Your task to perform on an android device: Find coffee shops on Maps Image 0: 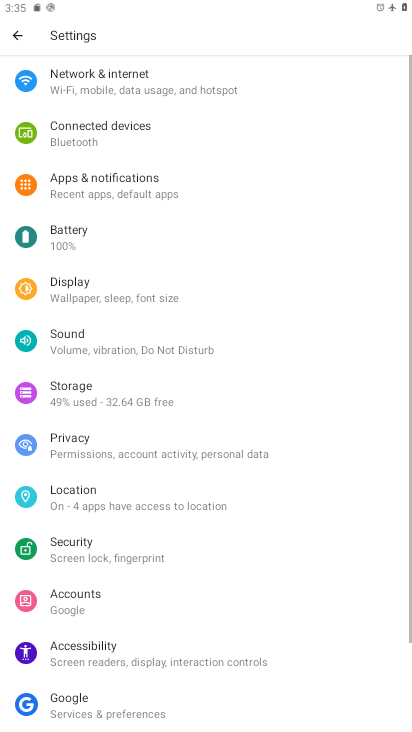
Step 0: press home button
Your task to perform on an android device: Find coffee shops on Maps Image 1: 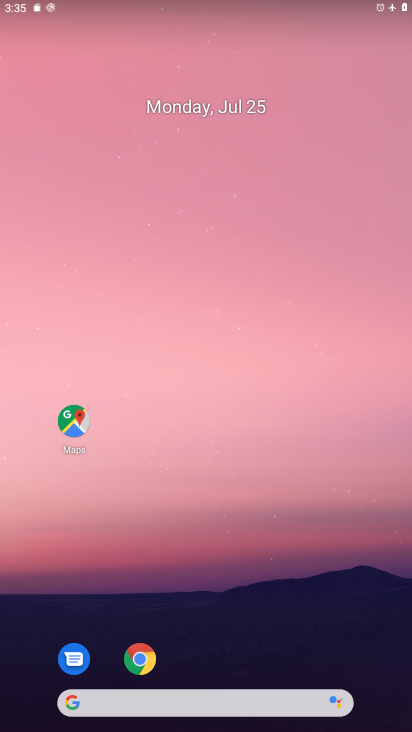
Step 1: click (71, 428)
Your task to perform on an android device: Find coffee shops on Maps Image 2: 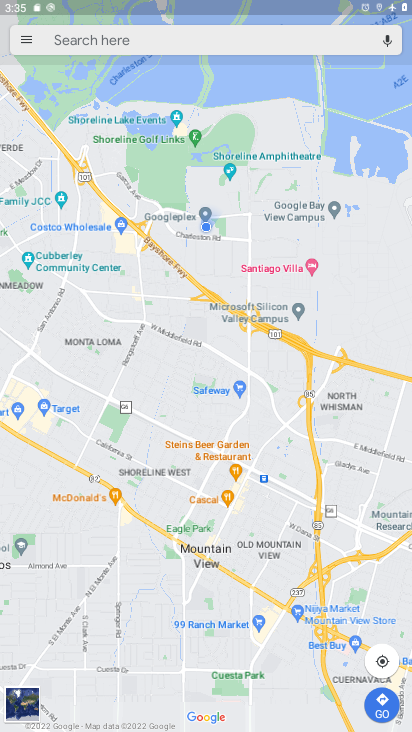
Step 2: click (146, 35)
Your task to perform on an android device: Find coffee shops on Maps Image 3: 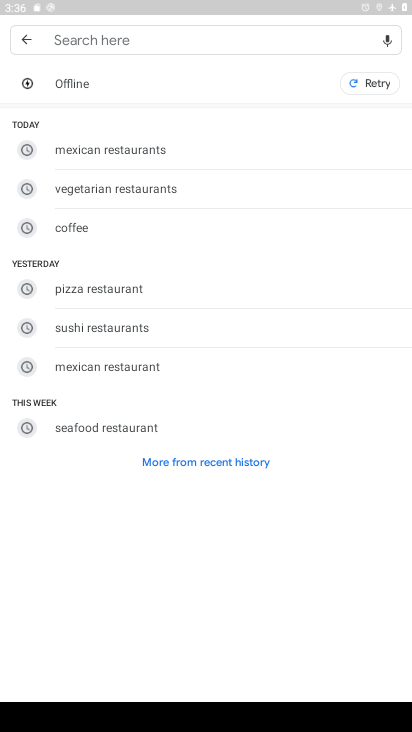
Step 3: type "coffee shops"
Your task to perform on an android device: Find coffee shops on Maps Image 4: 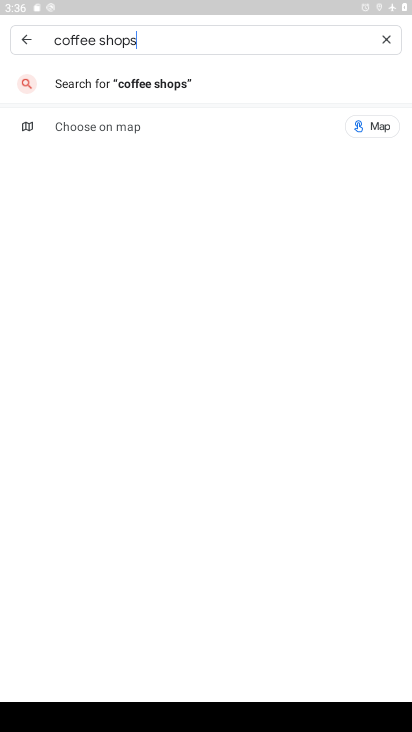
Step 4: press back button
Your task to perform on an android device: Find coffee shops on Maps Image 5: 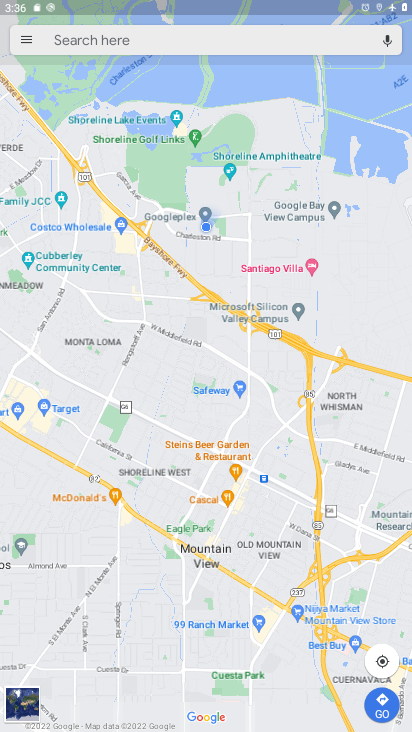
Step 5: press back button
Your task to perform on an android device: Find coffee shops on Maps Image 6: 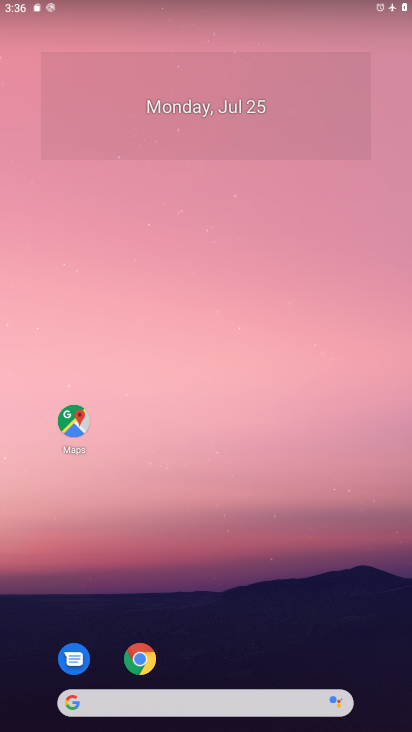
Step 6: drag from (187, 544) to (181, 22)
Your task to perform on an android device: Find coffee shops on Maps Image 7: 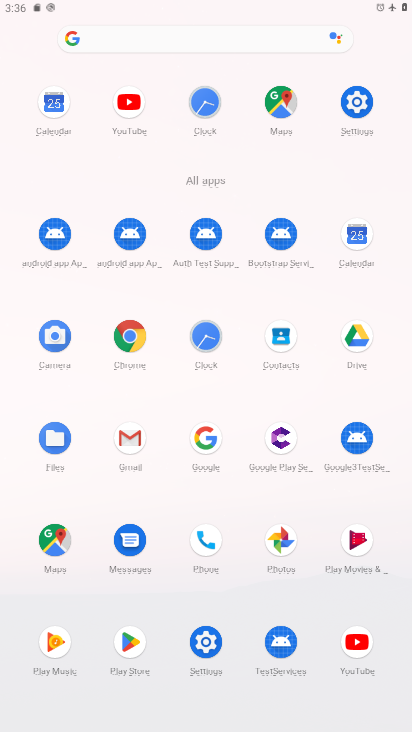
Step 7: click (354, 105)
Your task to perform on an android device: Find coffee shops on Maps Image 8: 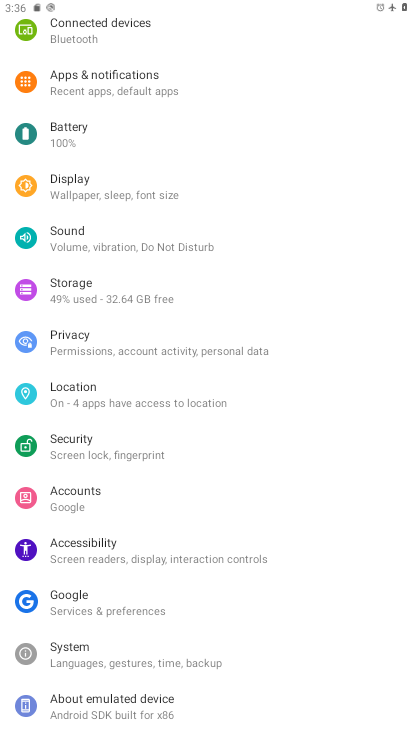
Step 8: click (360, 103)
Your task to perform on an android device: Find coffee shops on Maps Image 9: 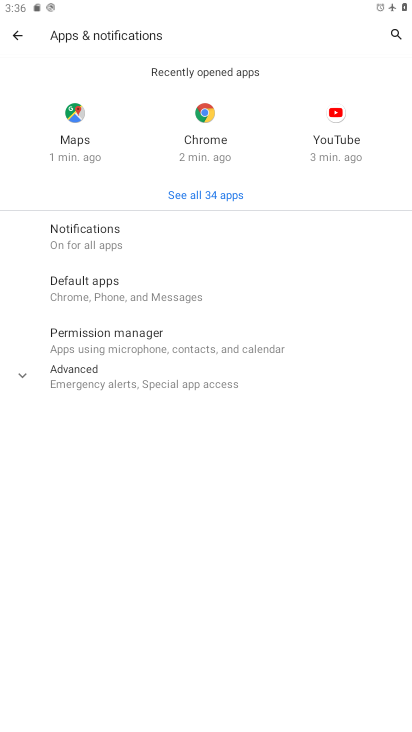
Step 9: drag from (356, 127) to (314, 477)
Your task to perform on an android device: Find coffee shops on Maps Image 10: 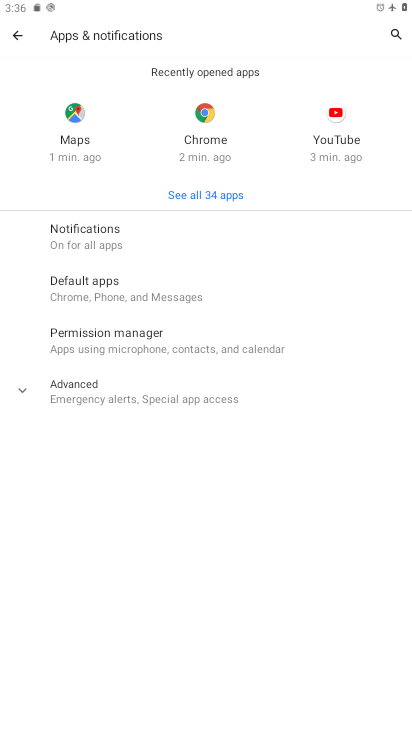
Step 10: click (18, 36)
Your task to perform on an android device: Find coffee shops on Maps Image 11: 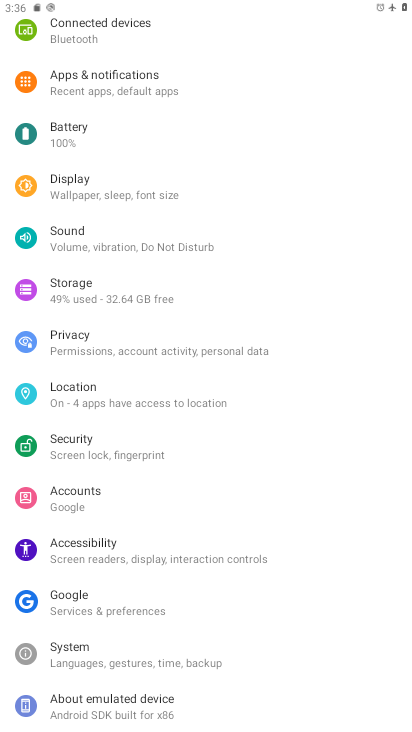
Step 11: drag from (125, 199) to (149, 426)
Your task to perform on an android device: Find coffee shops on Maps Image 12: 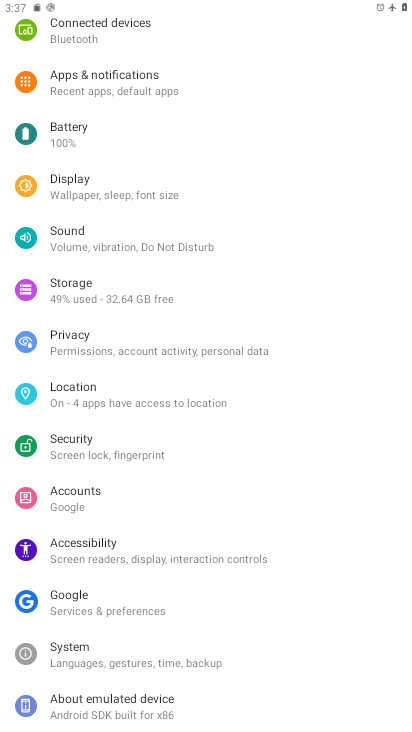
Step 12: drag from (258, 220) to (257, 571)
Your task to perform on an android device: Find coffee shops on Maps Image 13: 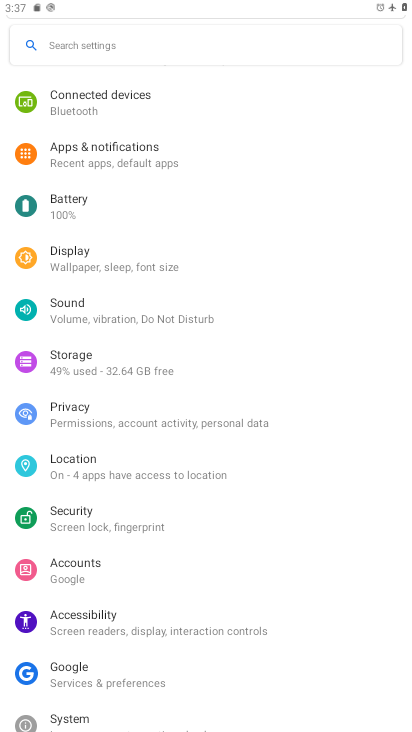
Step 13: drag from (227, 311) to (239, 594)
Your task to perform on an android device: Find coffee shops on Maps Image 14: 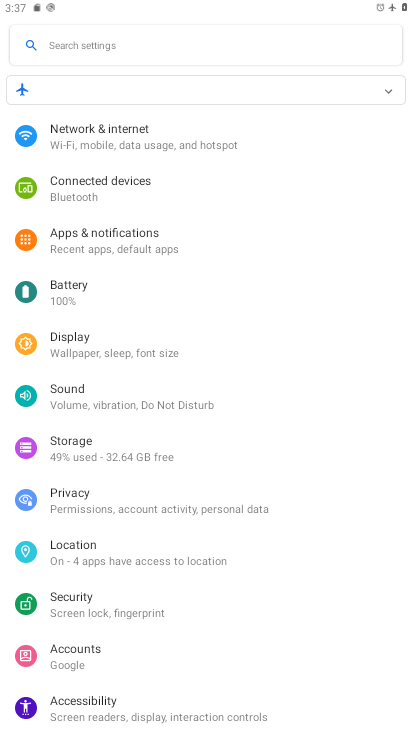
Step 14: click (388, 94)
Your task to perform on an android device: Find coffee shops on Maps Image 15: 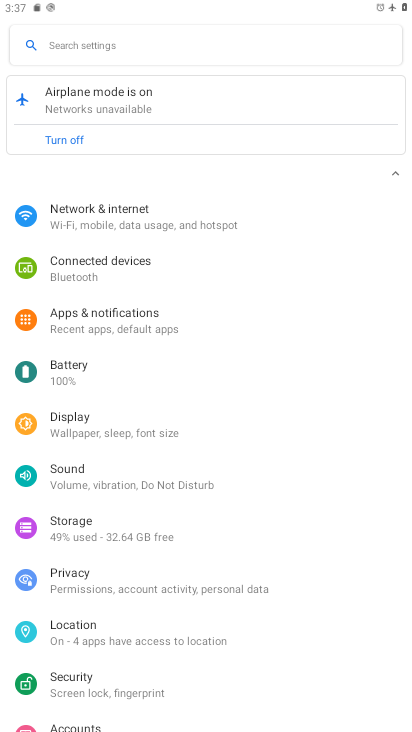
Step 15: click (75, 140)
Your task to perform on an android device: Find coffee shops on Maps Image 16: 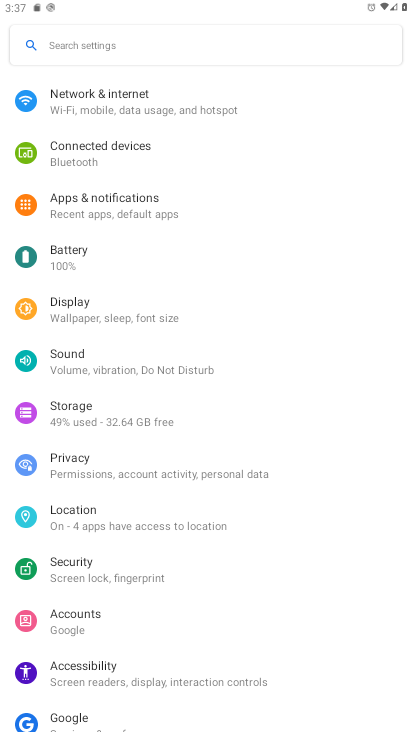
Step 16: press back button
Your task to perform on an android device: Find coffee shops on Maps Image 17: 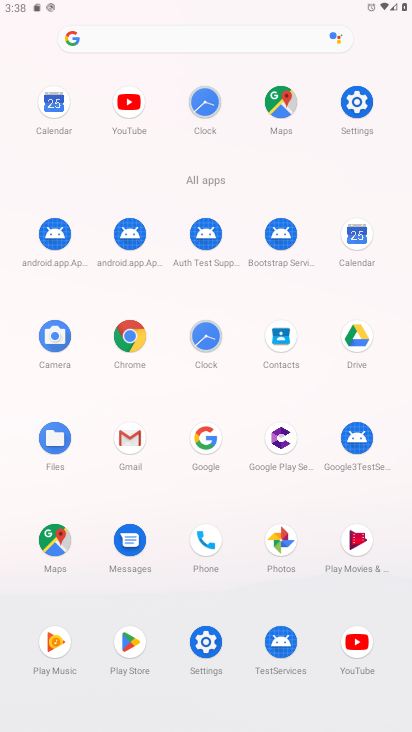
Step 17: click (278, 120)
Your task to perform on an android device: Find coffee shops on Maps Image 18: 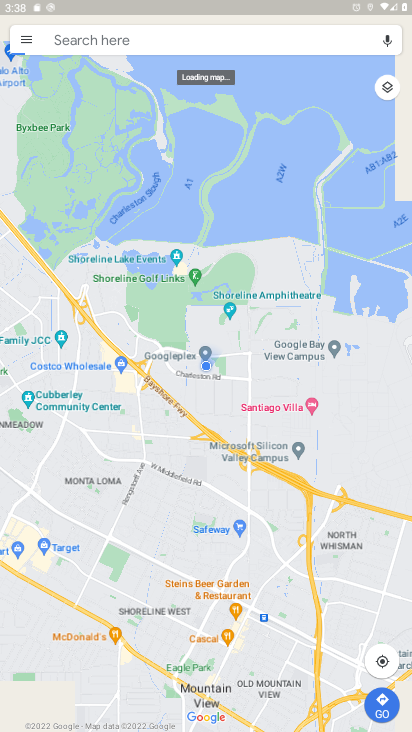
Step 18: click (122, 42)
Your task to perform on an android device: Find coffee shops on Maps Image 19: 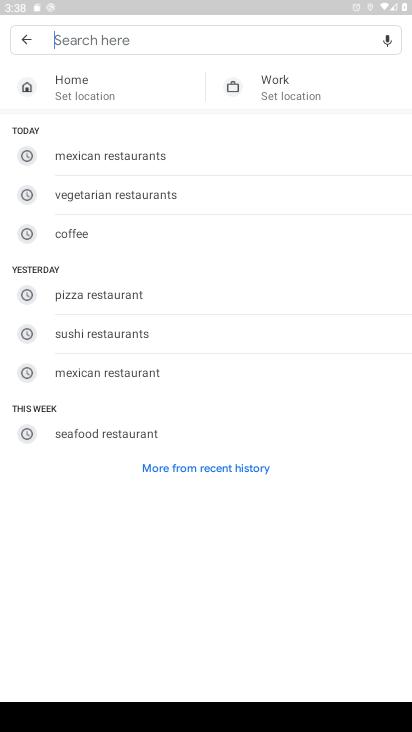
Step 19: type "coffee shops"
Your task to perform on an android device: Find coffee shops on Maps Image 20: 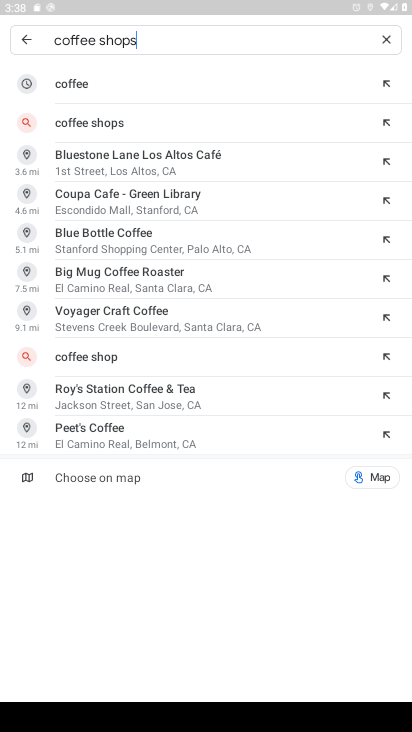
Step 20: click (106, 119)
Your task to perform on an android device: Find coffee shops on Maps Image 21: 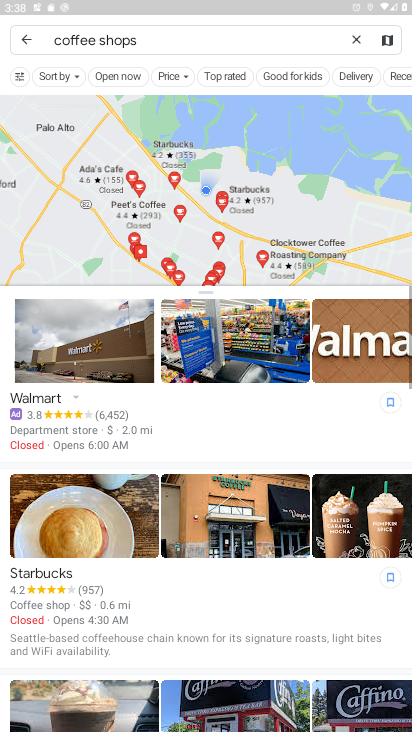
Step 21: task complete